Your task to perform on an android device: turn smart compose on in the gmail app Image 0: 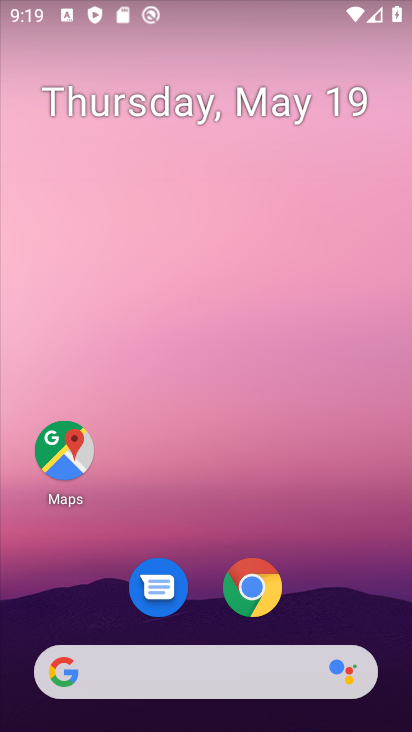
Step 0: drag from (345, 448) to (336, 120)
Your task to perform on an android device: turn smart compose on in the gmail app Image 1: 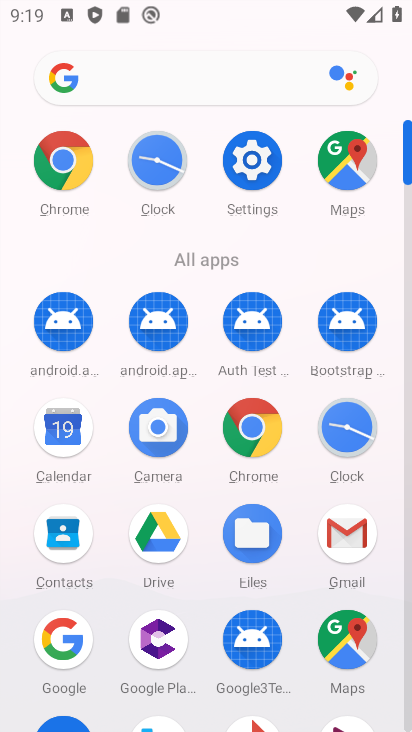
Step 1: drag from (389, 561) to (356, 387)
Your task to perform on an android device: turn smart compose on in the gmail app Image 2: 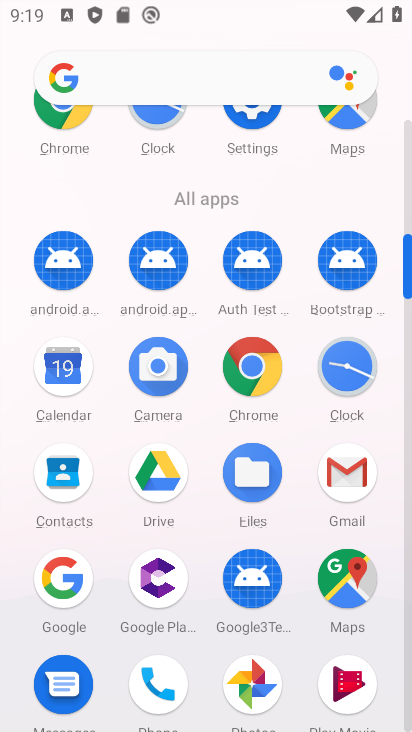
Step 2: click (355, 473)
Your task to perform on an android device: turn smart compose on in the gmail app Image 3: 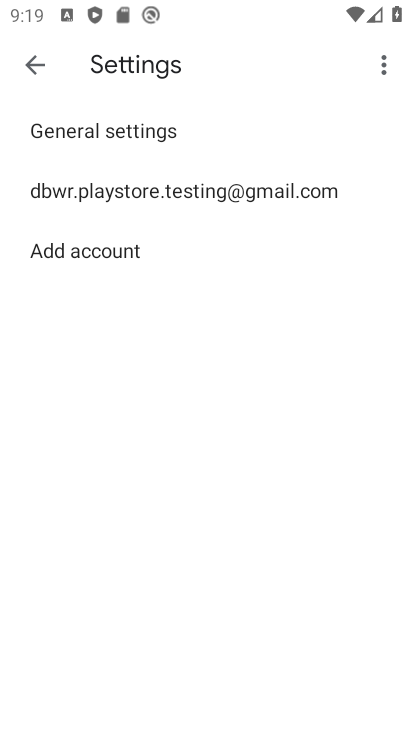
Step 3: click (108, 192)
Your task to perform on an android device: turn smart compose on in the gmail app Image 4: 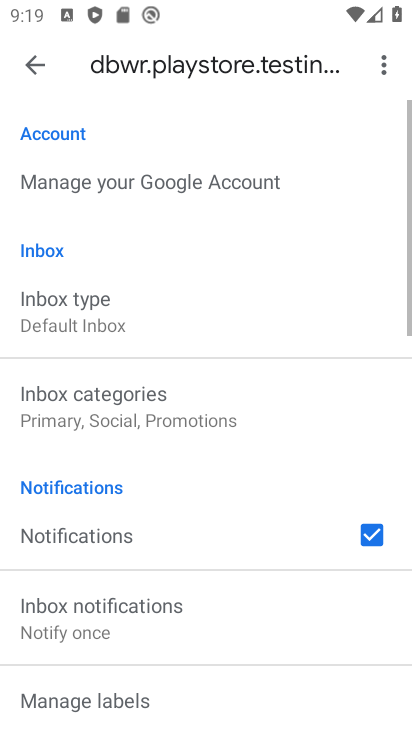
Step 4: task complete